Your task to perform on an android device: turn on priority inbox in the gmail app Image 0: 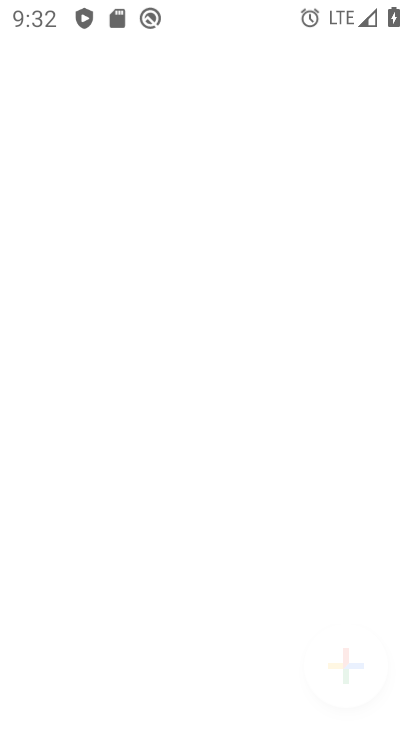
Step 0: drag from (239, 453) to (241, 151)
Your task to perform on an android device: turn on priority inbox in the gmail app Image 1: 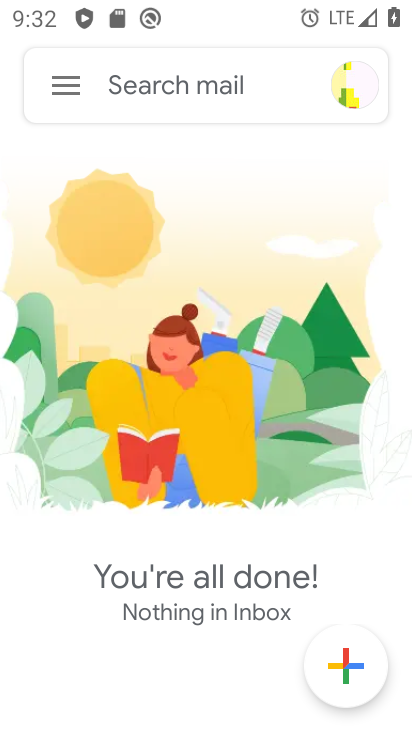
Step 1: click (57, 93)
Your task to perform on an android device: turn on priority inbox in the gmail app Image 2: 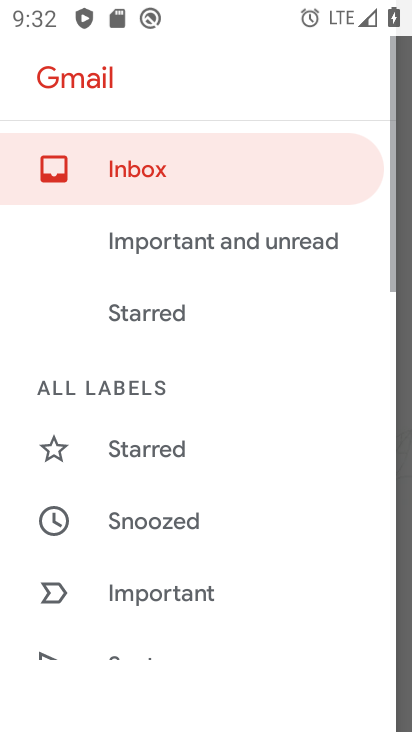
Step 2: drag from (126, 559) to (209, 36)
Your task to perform on an android device: turn on priority inbox in the gmail app Image 3: 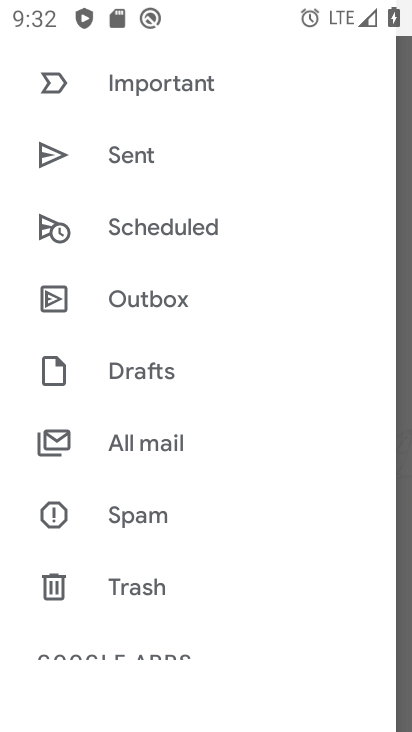
Step 3: drag from (139, 611) to (222, 105)
Your task to perform on an android device: turn on priority inbox in the gmail app Image 4: 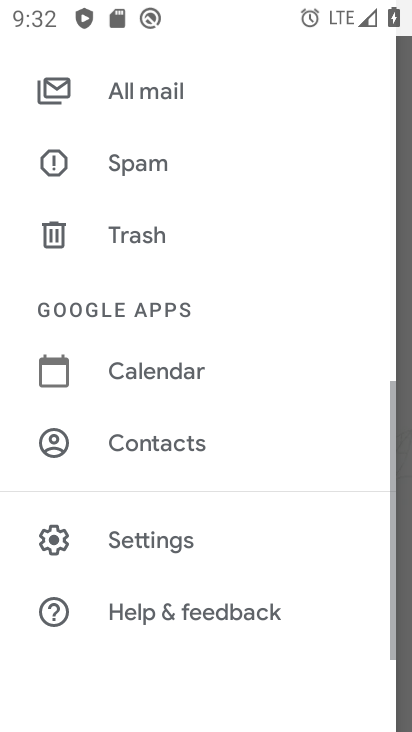
Step 4: click (186, 534)
Your task to perform on an android device: turn on priority inbox in the gmail app Image 5: 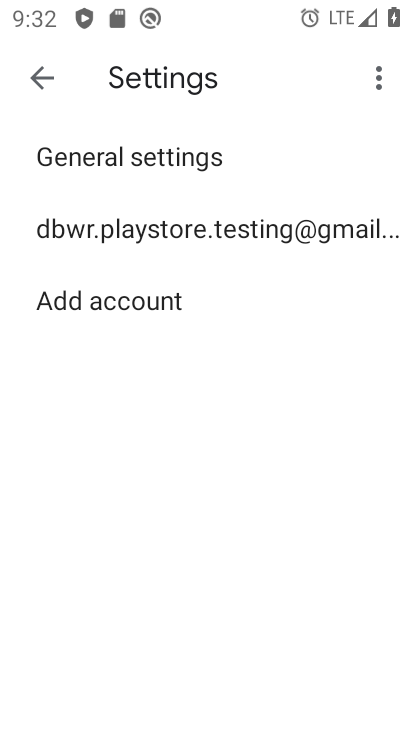
Step 5: click (148, 231)
Your task to perform on an android device: turn on priority inbox in the gmail app Image 6: 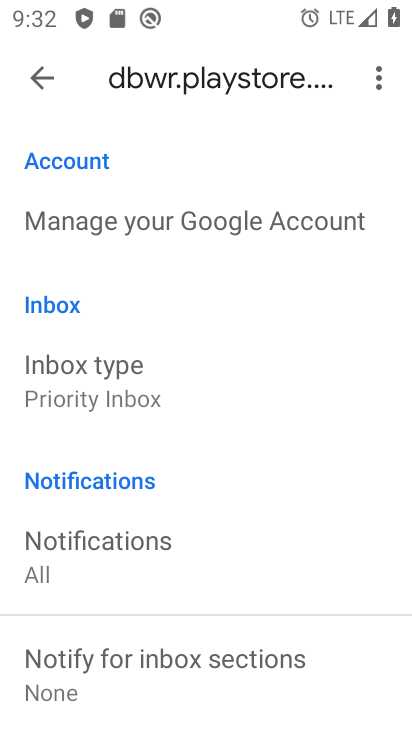
Step 6: click (140, 383)
Your task to perform on an android device: turn on priority inbox in the gmail app Image 7: 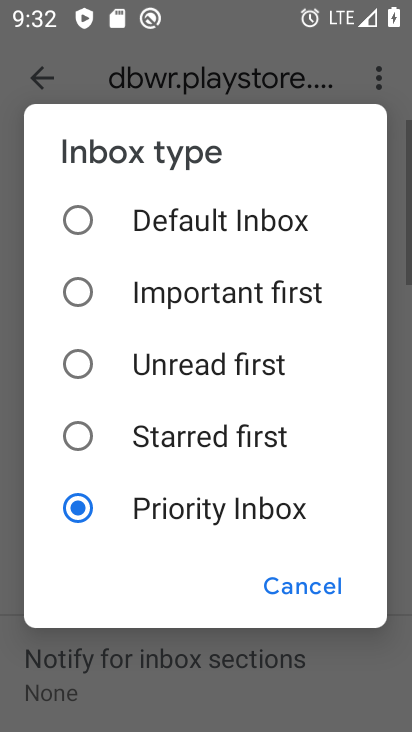
Step 7: click (170, 505)
Your task to perform on an android device: turn on priority inbox in the gmail app Image 8: 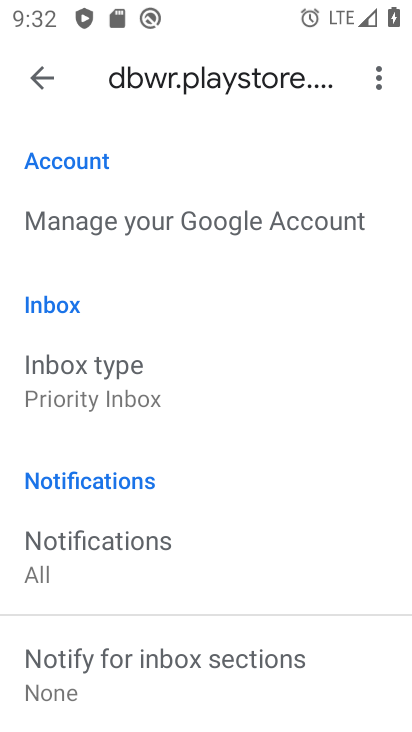
Step 8: task complete